Your task to perform on an android device: Open Wikipedia Image 0: 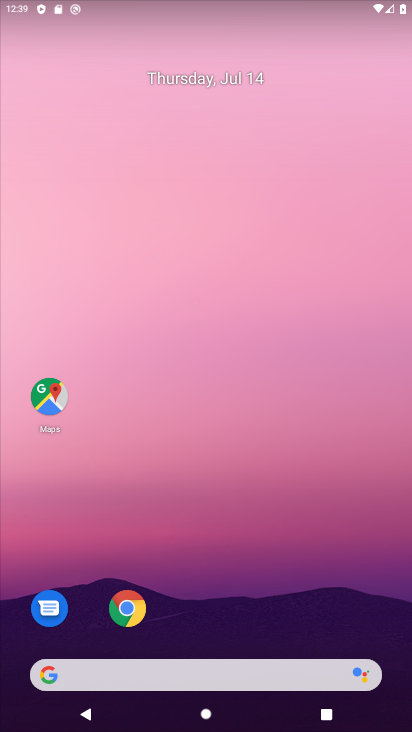
Step 0: drag from (194, 628) to (208, 372)
Your task to perform on an android device: Open Wikipedia Image 1: 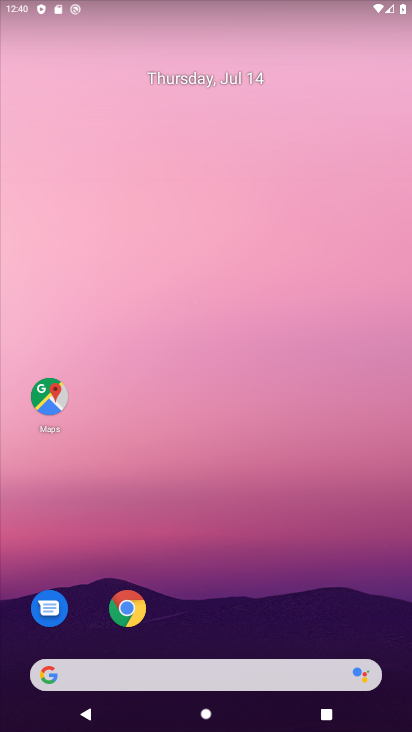
Step 1: drag from (192, 647) to (403, 14)
Your task to perform on an android device: Open Wikipedia Image 2: 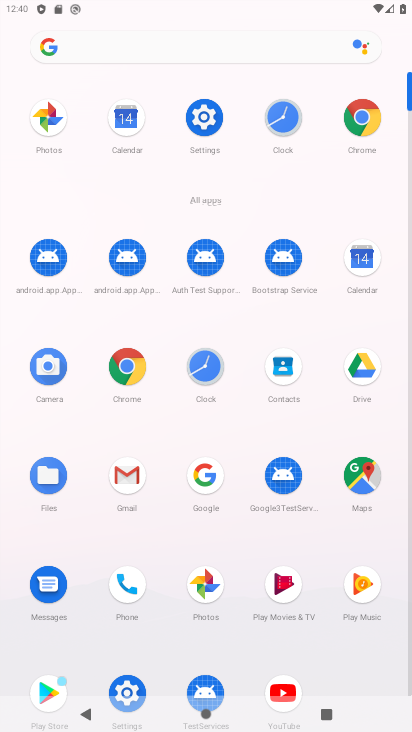
Step 2: drag from (159, 568) to (159, 326)
Your task to perform on an android device: Open Wikipedia Image 3: 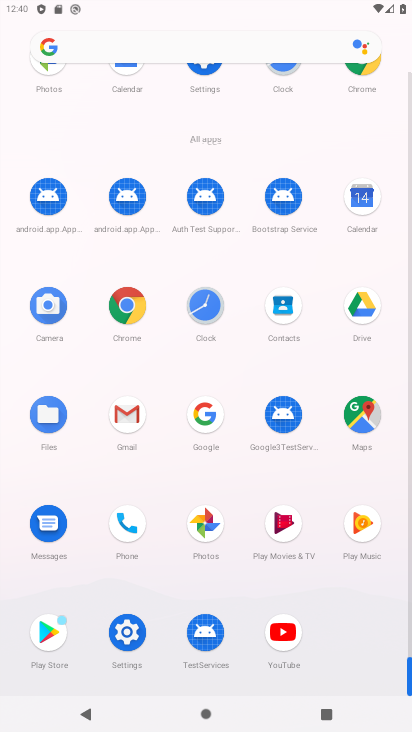
Step 3: drag from (151, 181) to (163, 684)
Your task to perform on an android device: Open Wikipedia Image 4: 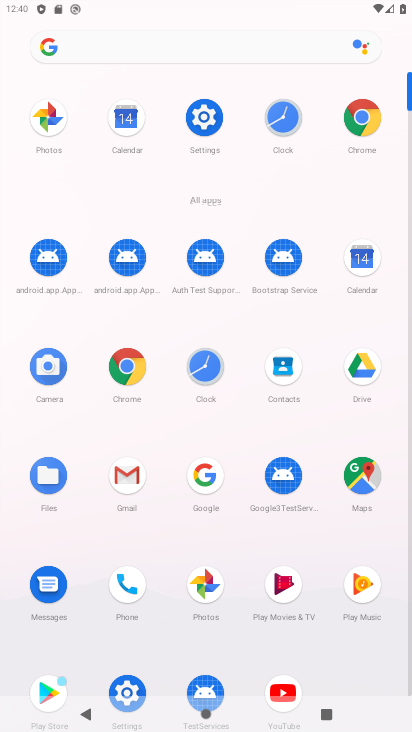
Step 4: click (210, 119)
Your task to perform on an android device: Open Wikipedia Image 5: 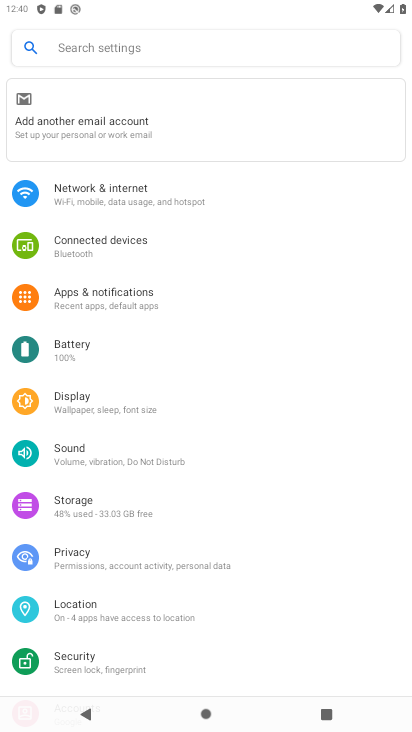
Step 5: drag from (194, 636) to (258, 689)
Your task to perform on an android device: Open Wikipedia Image 6: 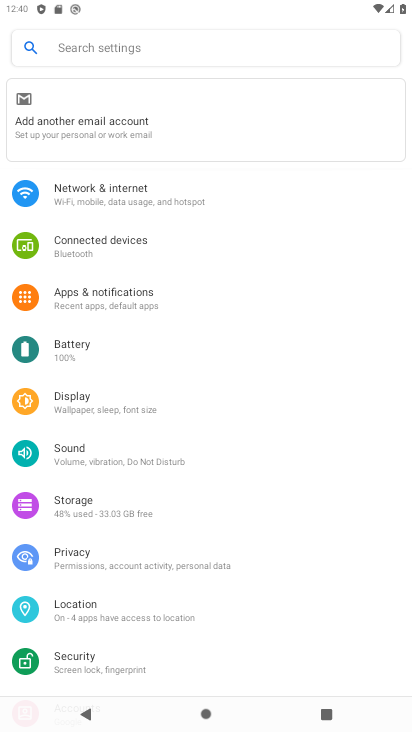
Step 6: press home button
Your task to perform on an android device: Open Wikipedia Image 7: 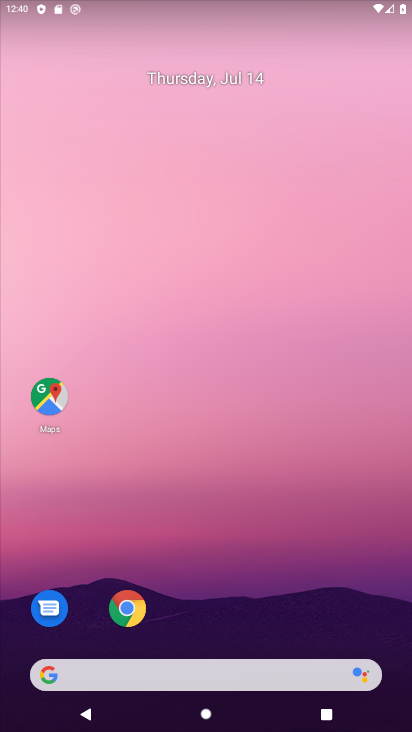
Step 7: drag from (185, 638) to (175, 153)
Your task to perform on an android device: Open Wikipedia Image 8: 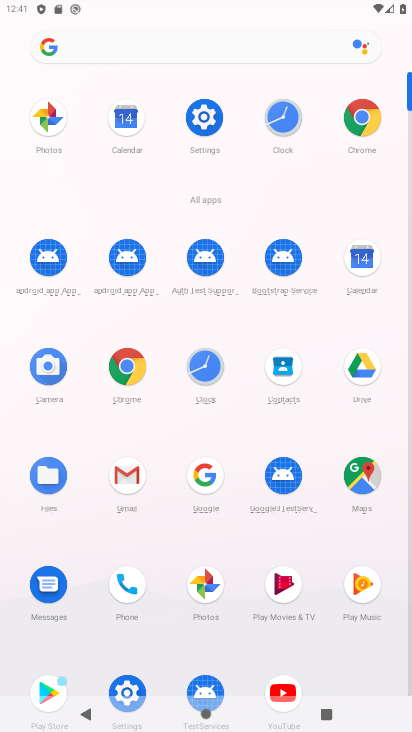
Step 8: click (188, 49)
Your task to perform on an android device: Open Wikipedia Image 9: 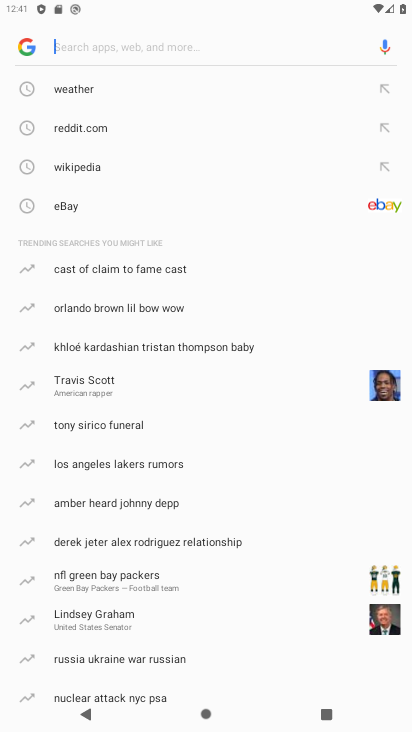
Step 9: type "wikipedia"
Your task to perform on an android device: Open Wikipedia Image 10: 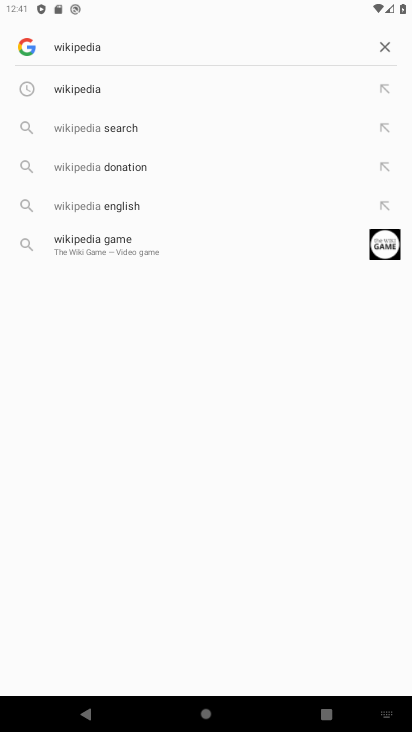
Step 10: click (121, 92)
Your task to perform on an android device: Open Wikipedia Image 11: 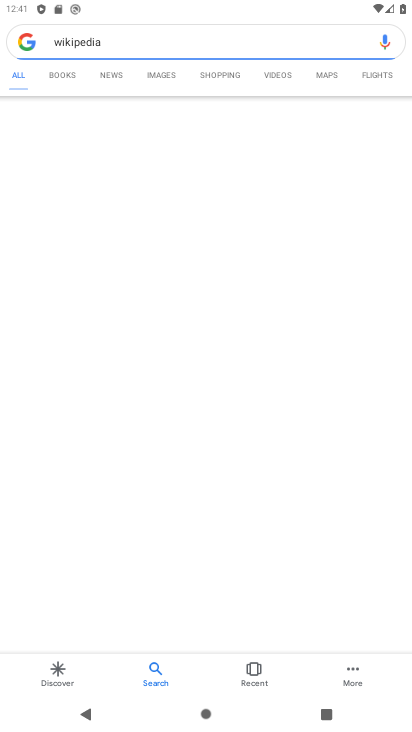
Step 11: drag from (234, 446) to (220, 175)
Your task to perform on an android device: Open Wikipedia Image 12: 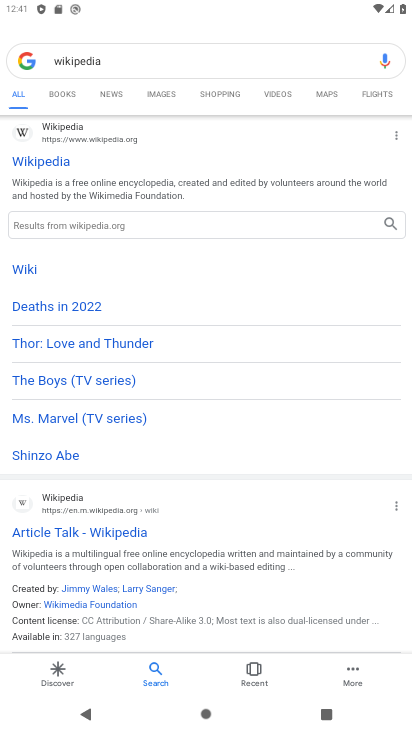
Step 12: drag from (150, 521) to (197, 337)
Your task to perform on an android device: Open Wikipedia Image 13: 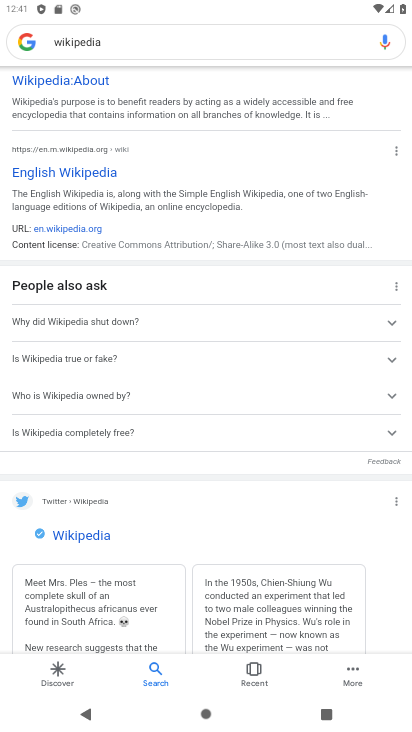
Step 13: drag from (198, 272) to (293, 709)
Your task to perform on an android device: Open Wikipedia Image 14: 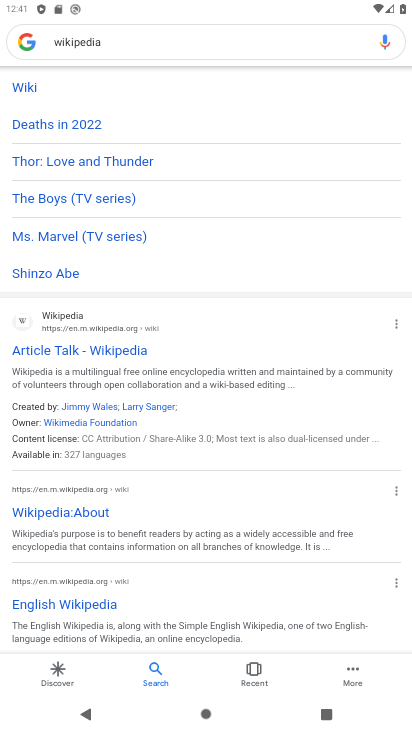
Step 14: drag from (145, 144) to (290, 711)
Your task to perform on an android device: Open Wikipedia Image 15: 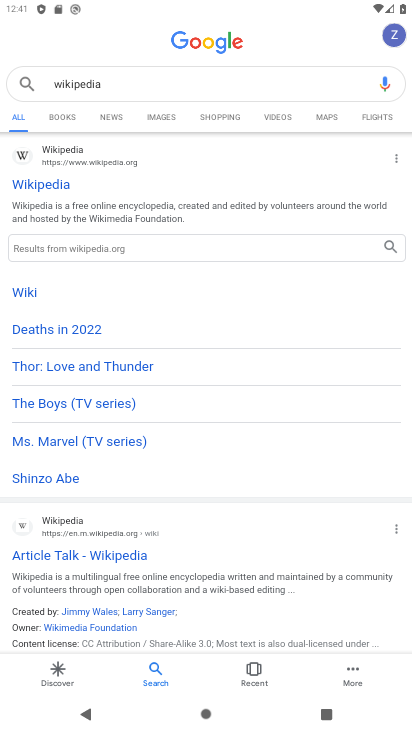
Step 15: click (37, 186)
Your task to perform on an android device: Open Wikipedia Image 16: 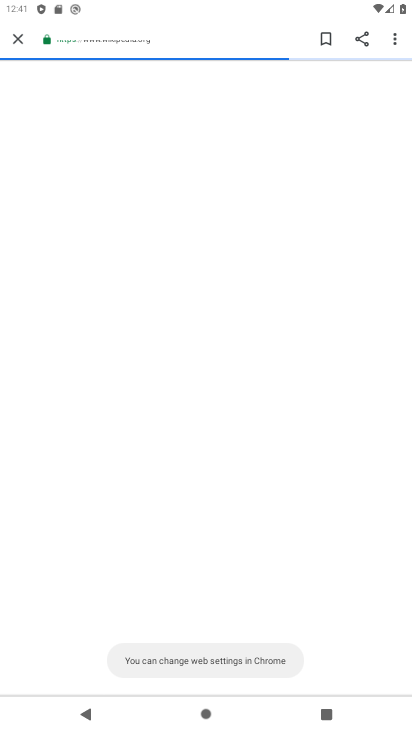
Step 16: task complete